Your task to perform on an android device: toggle notifications settings in the gmail app Image 0: 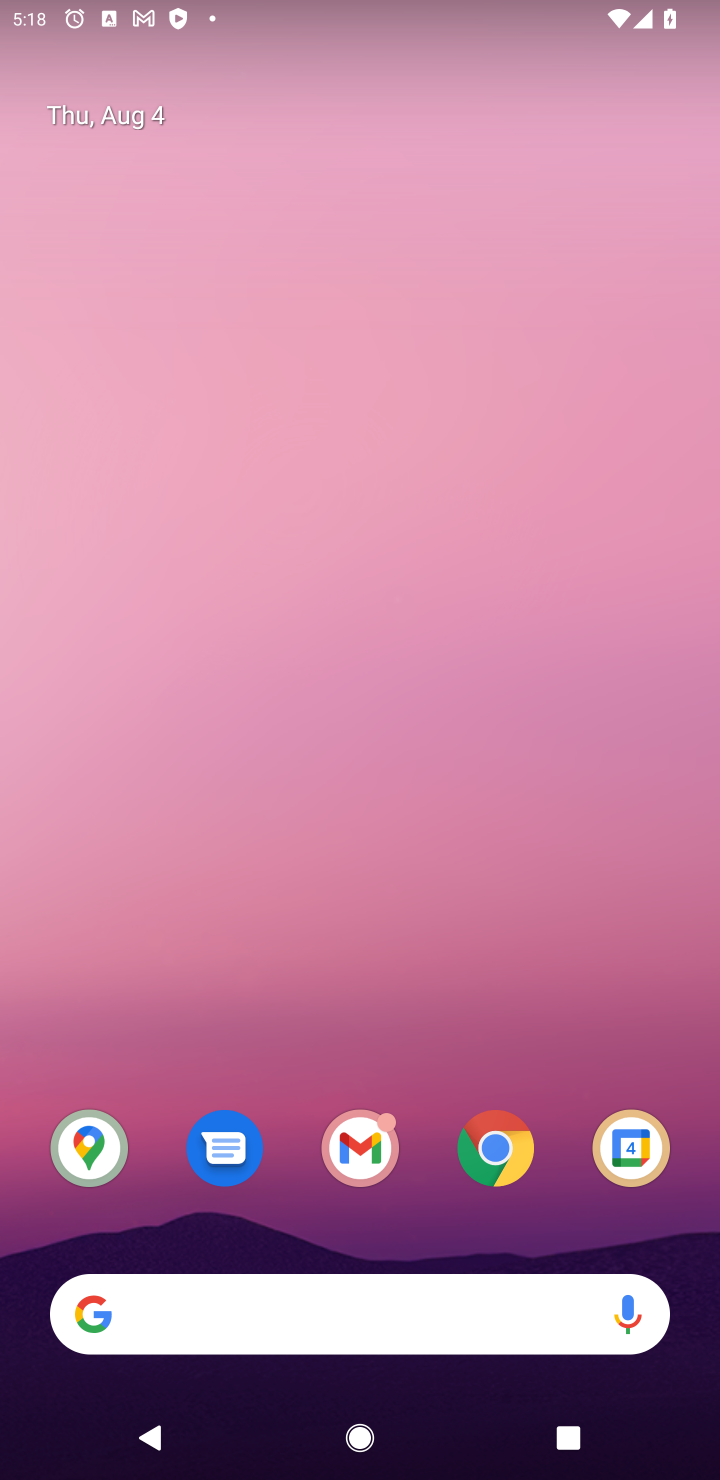
Step 0: click (361, 1147)
Your task to perform on an android device: toggle notifications settings in the gmail app Image 1: 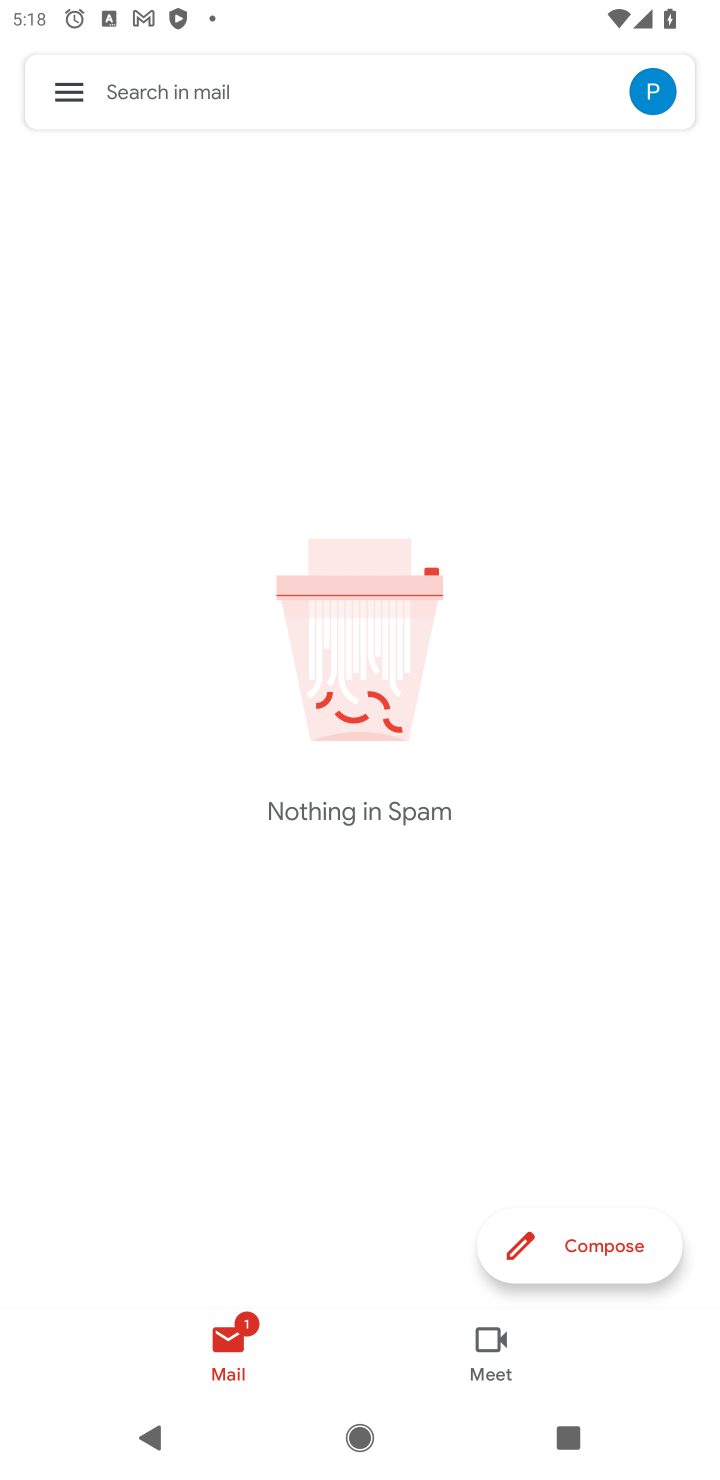
Step 1: click (65, 105)
Your task to perform on an android device: toggle notifications settings in the gmail app Image 2: 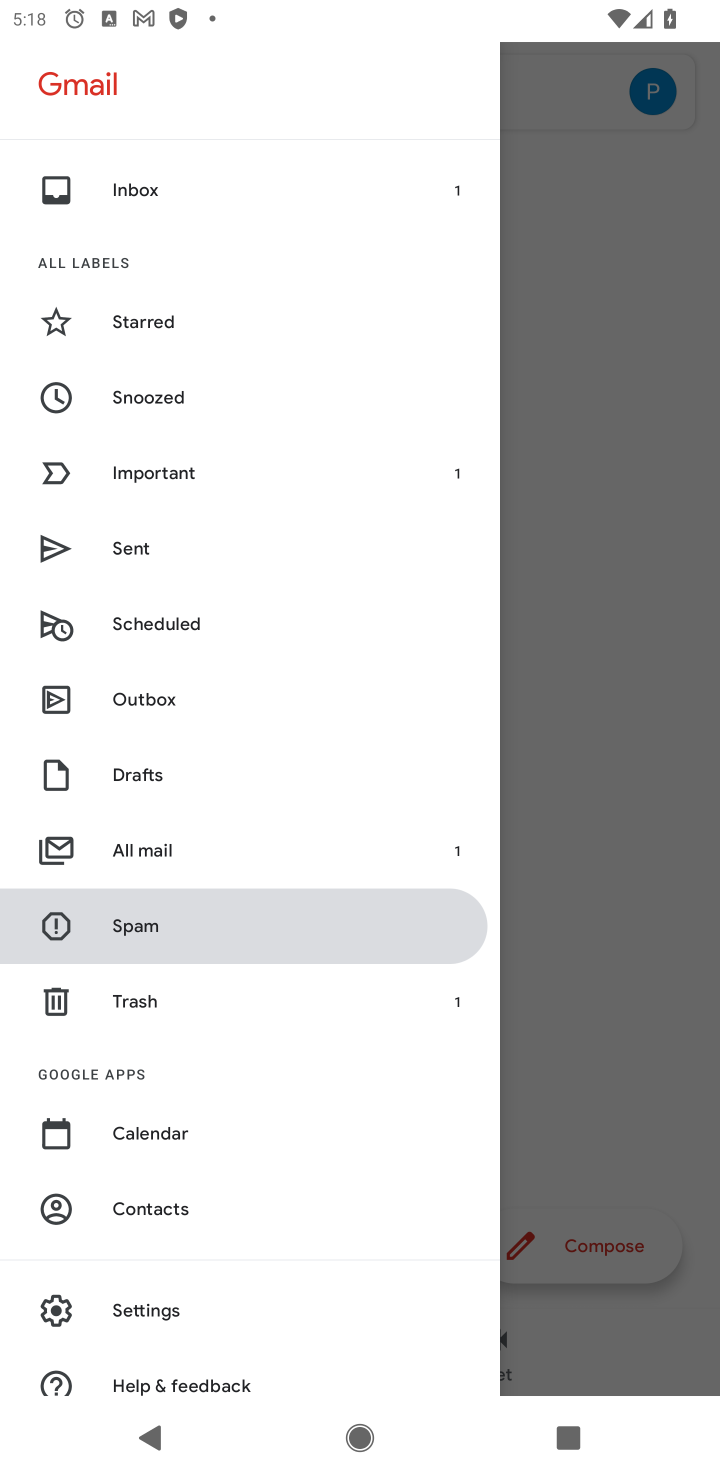
Step 2: click (150, 1301)
Your task to perform on an android device: toggle notifications settings in the gmail app Image 3: 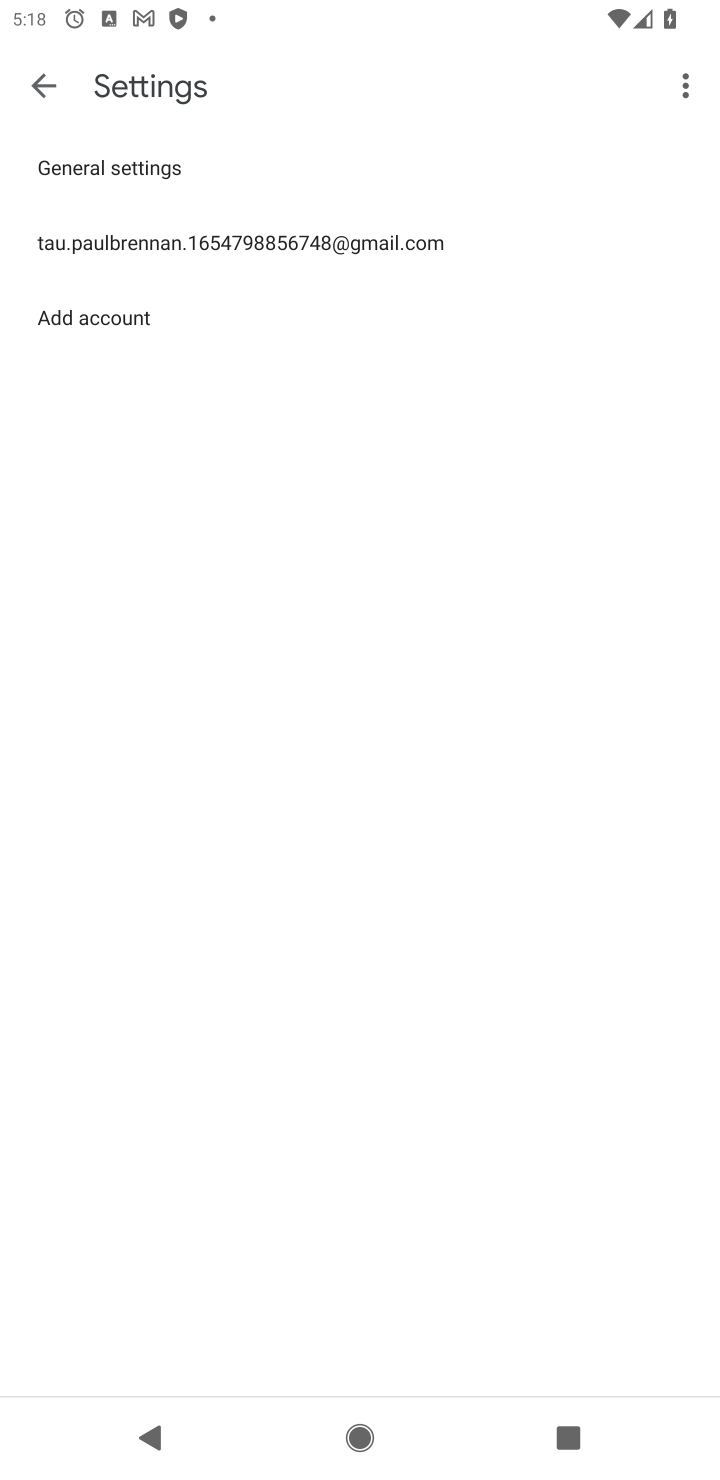
Step 3: click (190, 226)
Your task to perform on an android device: toggle notifications settings in the gmail app Image 4: 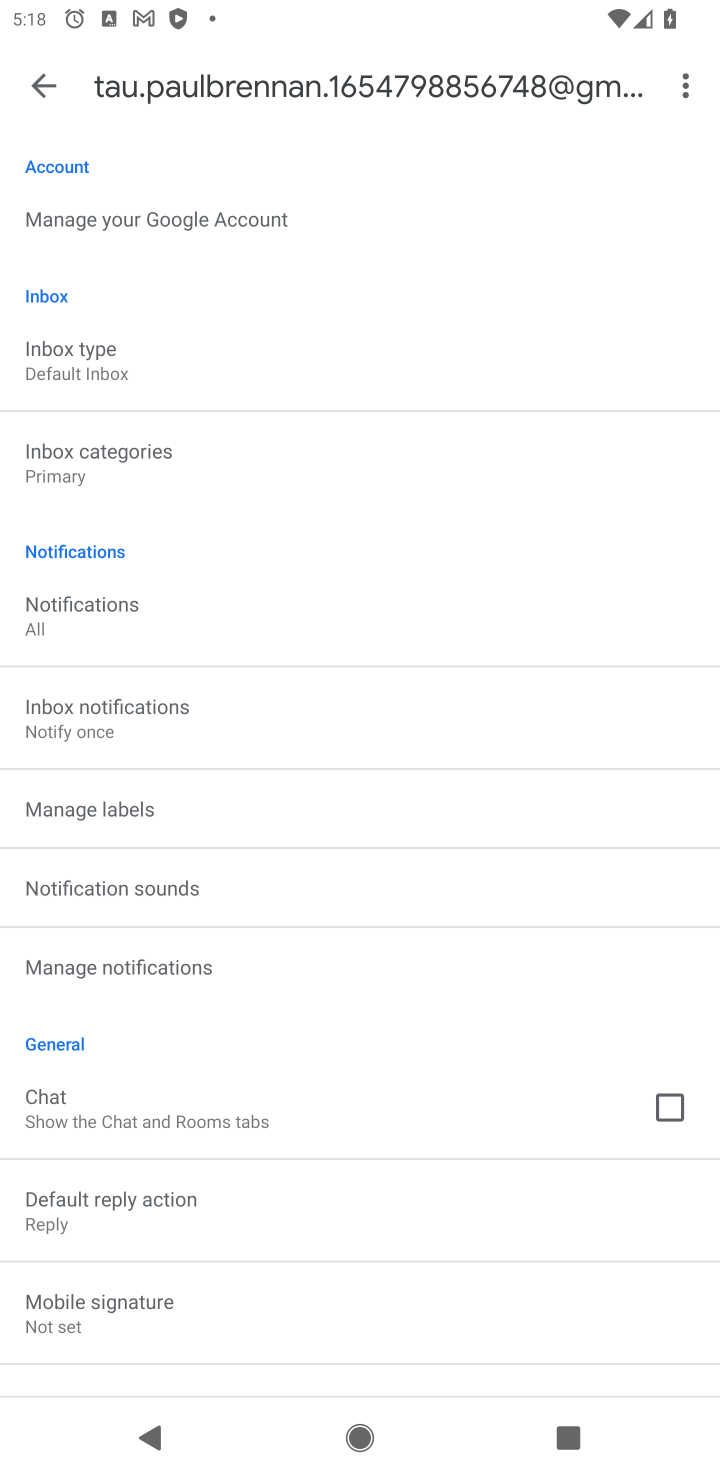
Step 4: click (123, 952)
Your task to perform on an android device: toggle notifications settings in the gmail app Image 5: 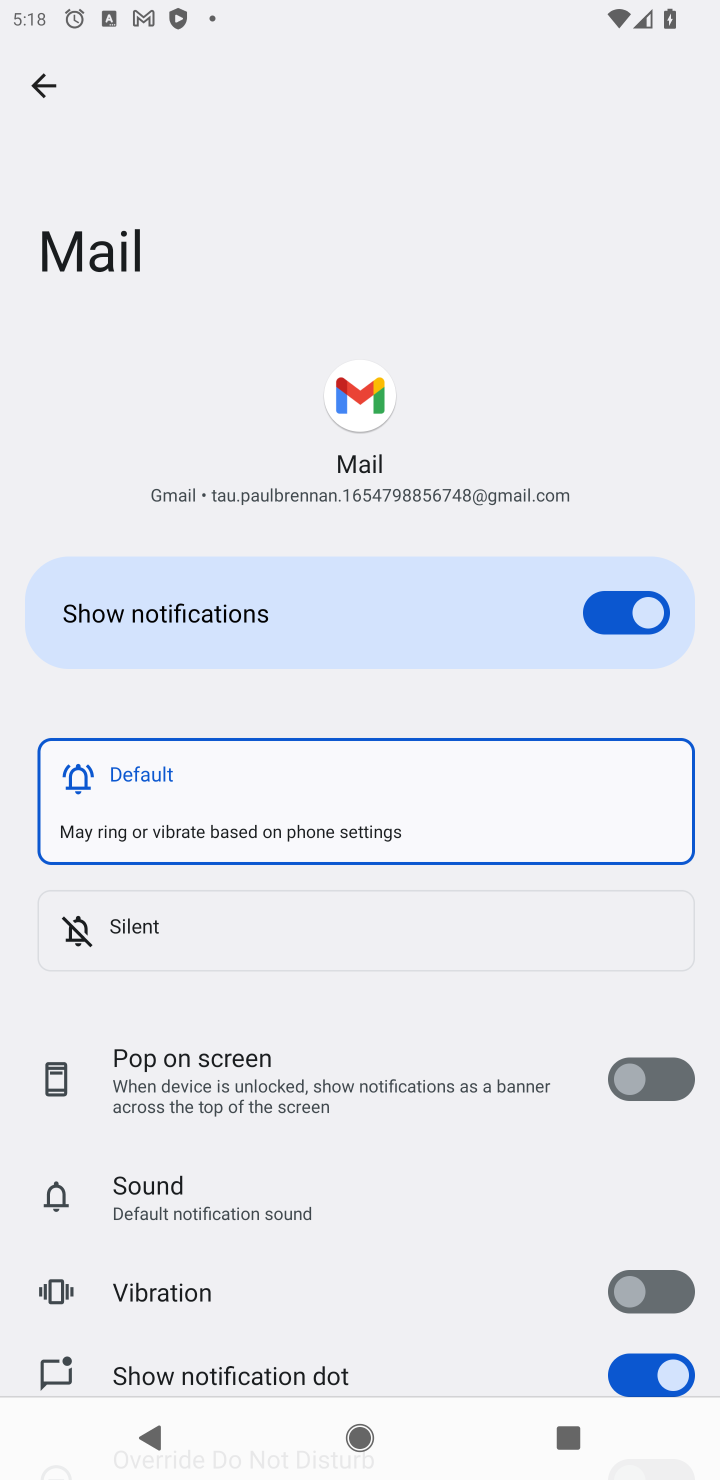
Step 5: click (603, 593)
Your task to perform on an android device: toggle notifications settings in the gmail app Image 6: 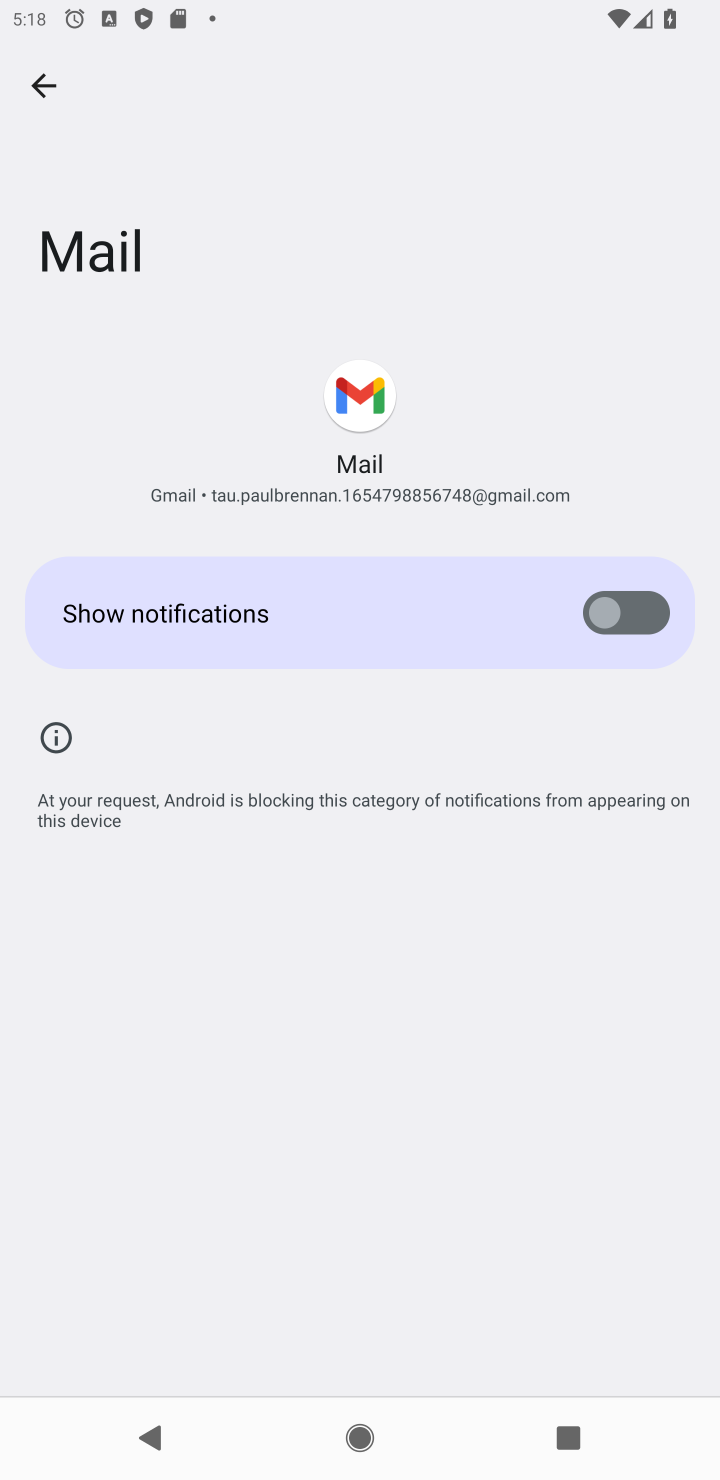
Step 6: task complete